Your task to perform on an android device: read, delete, or share a saved page in the chrome app Image 0: 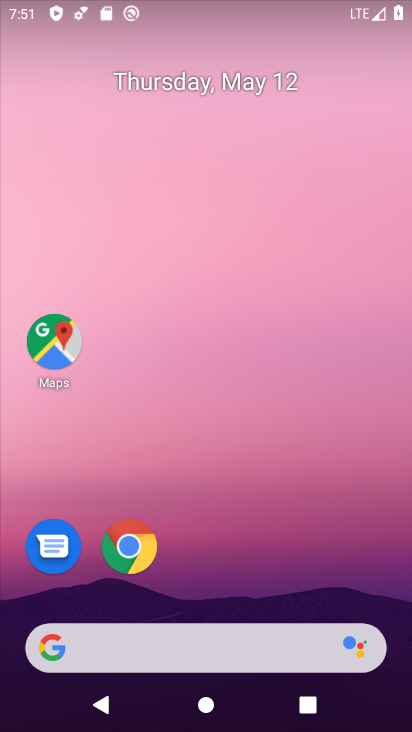
Step 0: click (152, 529)
Your task to perform on an android device: read, delete, or share a saved page in the chrome app Image 1: 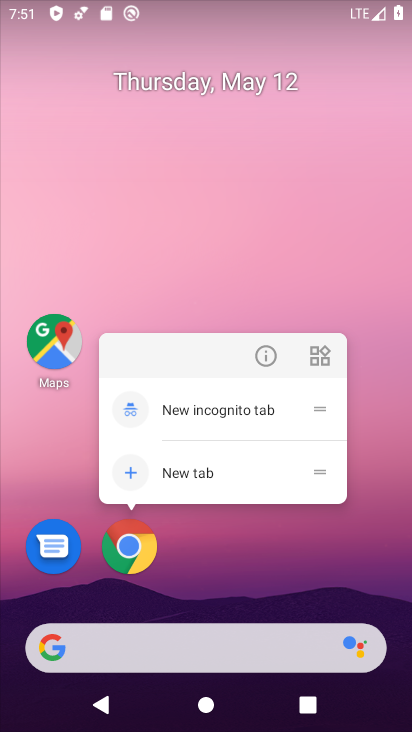
Step 1: click (127, 552)
Your task to perform on an android device: read, delete, or share a saved page in the chrome app Image 2: 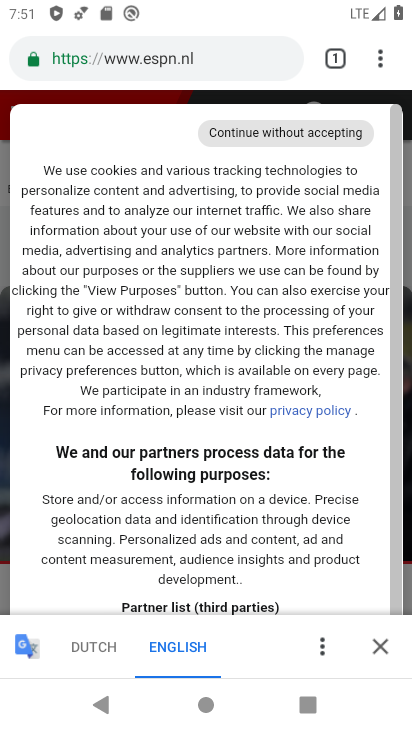
Step 2: drag from (372, 65) to (175, 385)
Your task to perform on an android device: read, delete, or share a saved page in the chrome app Image 3: 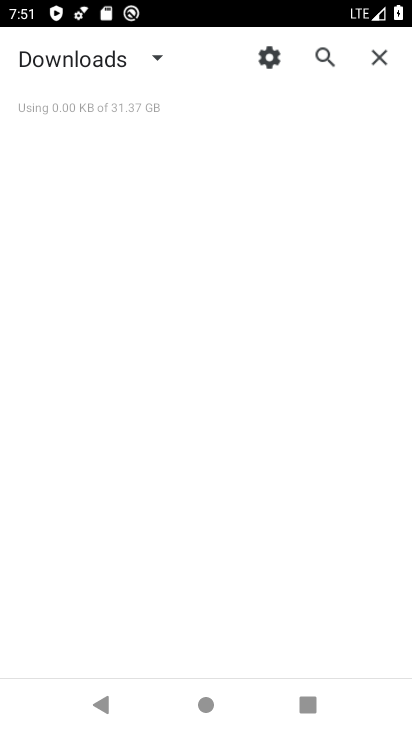
Step 3: click (152, 42)
Your task to perform on an android device: read, delete, or share a saved page in the chrome app Image 4: 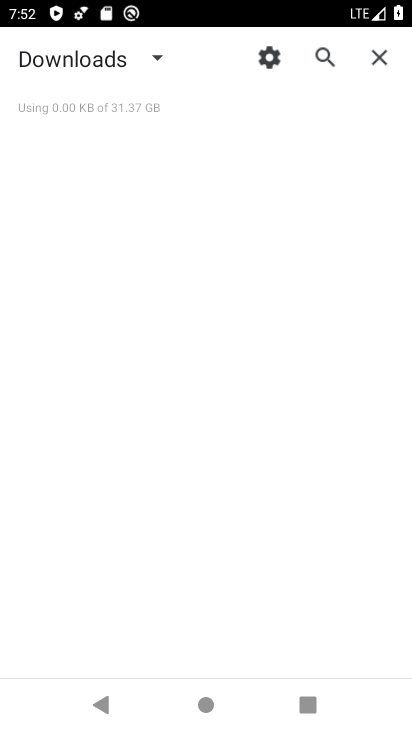
Step 4: click (162, 58)
Your task to perform on an android device: read, delete, or share a saved page in the chrome app Image 5: 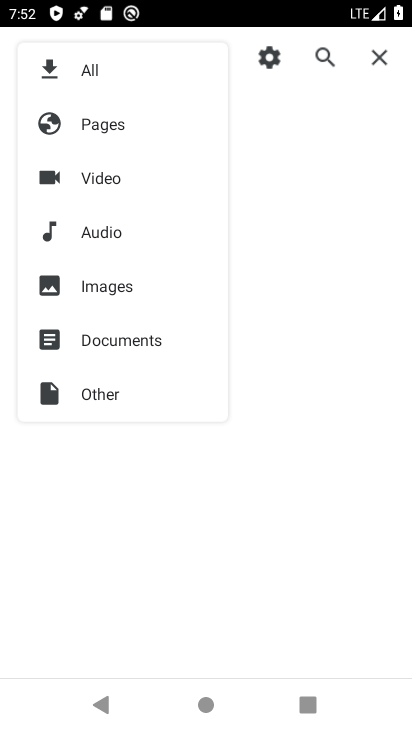
Step 5: click (110, 127)
Your task to perform on an android device: read, delete, or share a saved page in the chrome app Image 6: 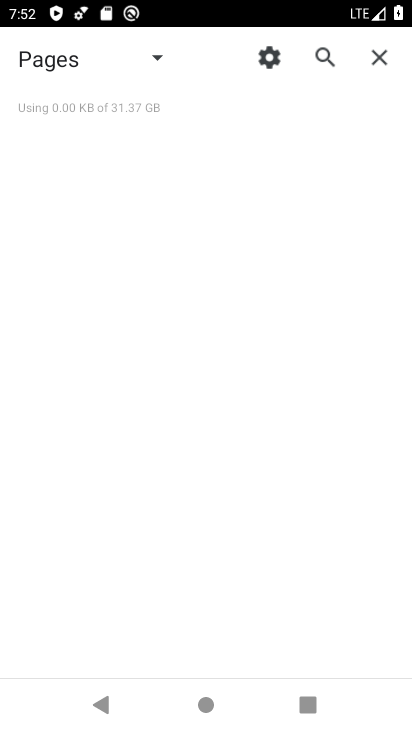
Step 6: task complete